Your task to perform on an android device: Search for "jbl charge 4" on amazon.com, select the first entry, and add it to the cart. Image 0: 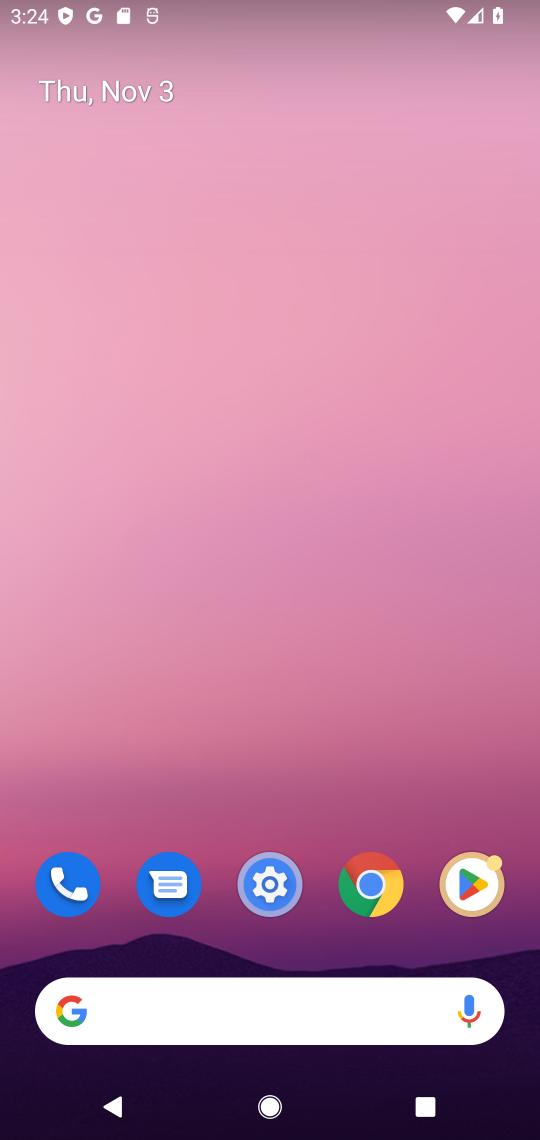
Step 0: press home button
Your task to perform on an android device: Search for "jbl charge 4" on amazon.com, select the first entry, and add it to the cart. Image 1: 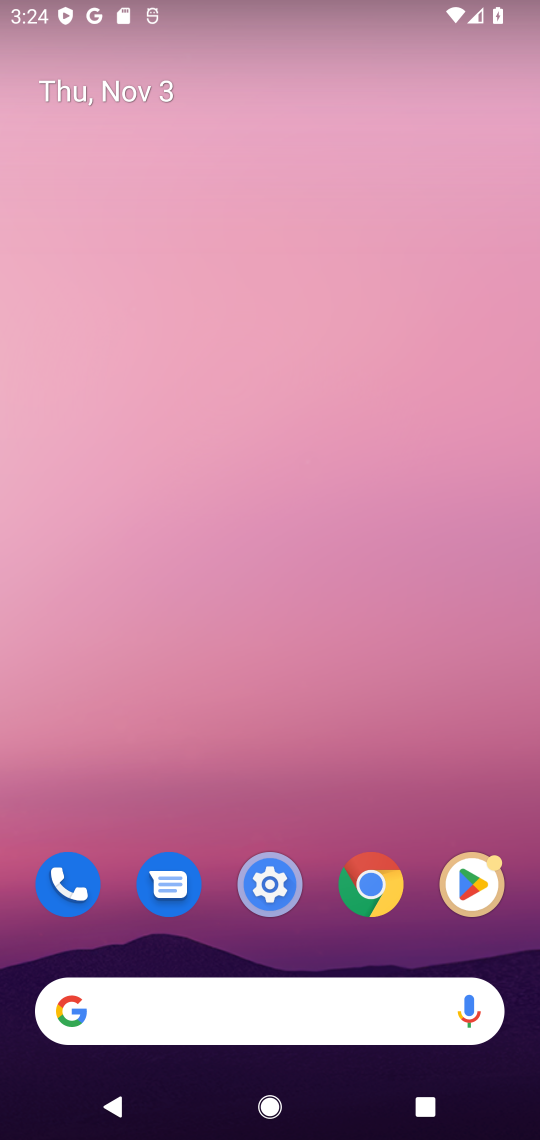
Step 1: click (108, 1009)
Your task to perform on an android device: Search for "jbl charge 4" on amazon.com, select the first entry, and add it to the cart. Image 2: 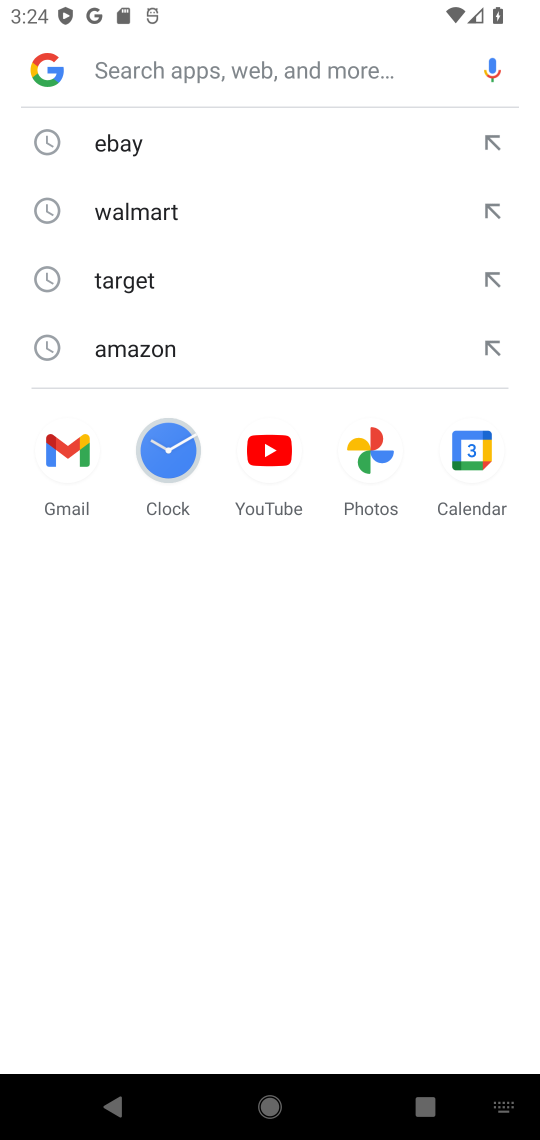
Step 2: type "amazon.com"
Your task to perform on an android device: Search for "jbl charge 4" on amazon.com, select the first entry, and add it to the cart. Image 3: 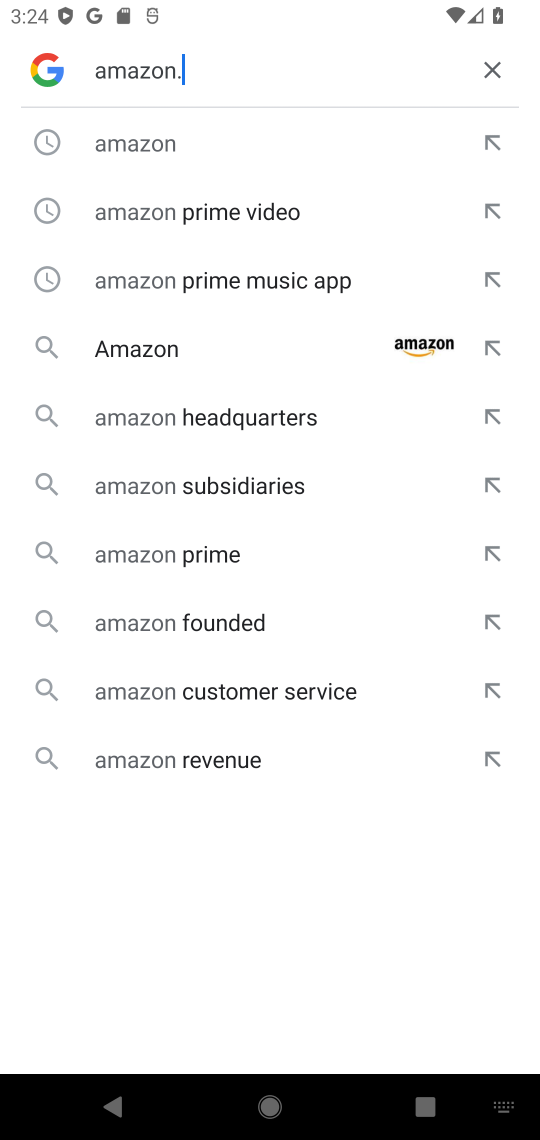
Step 3: press enter
Your task to perform on an android device: Search for "jbl charge 4" on amazon.com, select the first entry, and add it to the cart. Image 4: 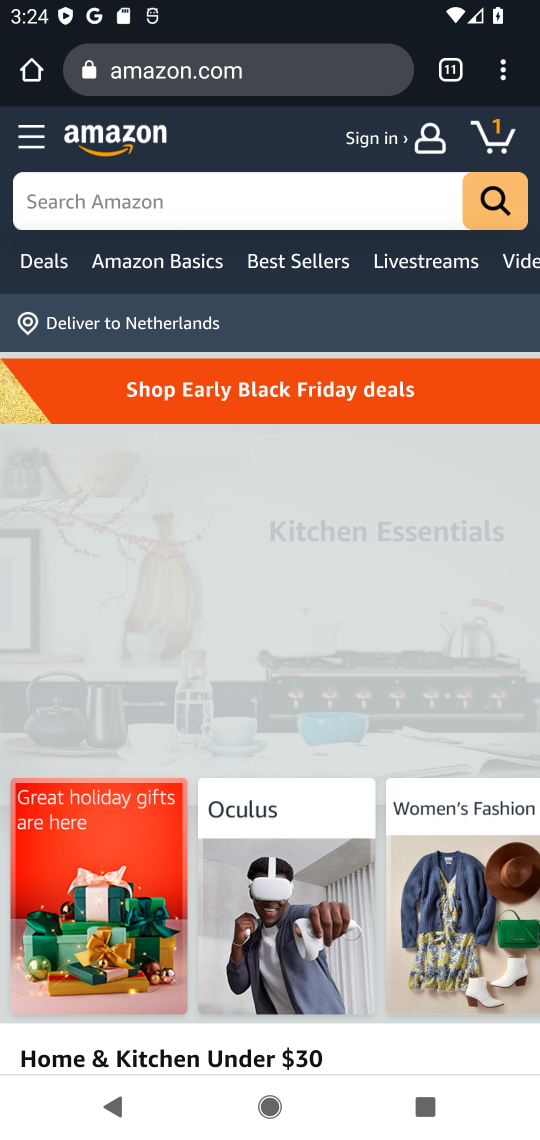
Step 4: click (81, 202)
Your task to perform on an android device: Search for "jbl charge 4" on amazon.com, select the first entry, and add it to the cart. Image 5: 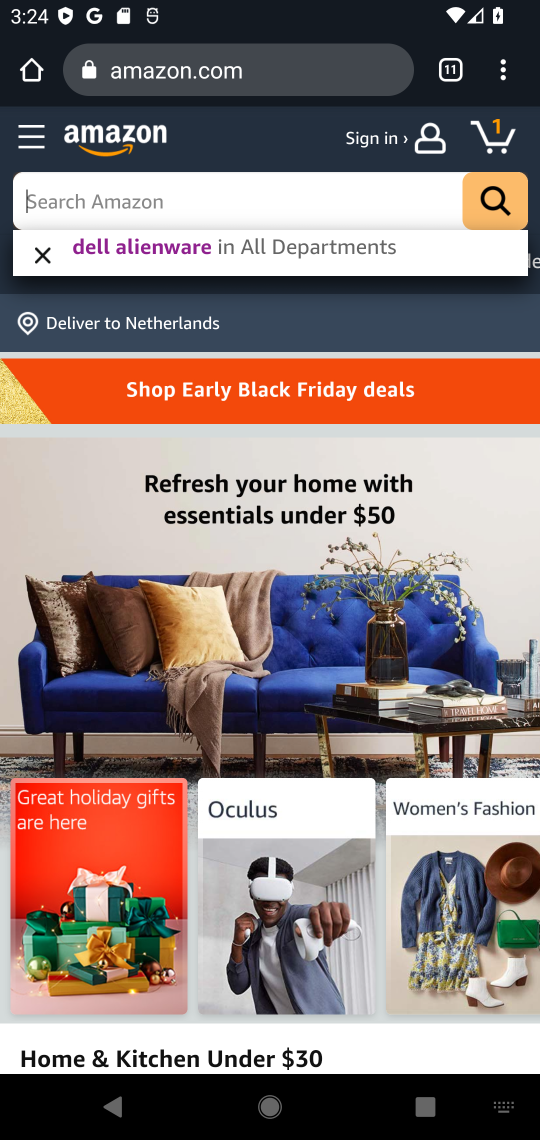
Step 5: type "jbl charge 4"
Your task to perform on an android device: Search for "jbl charge 4" on amazon.com, select the first entry, and add it to the cart. Image 6: 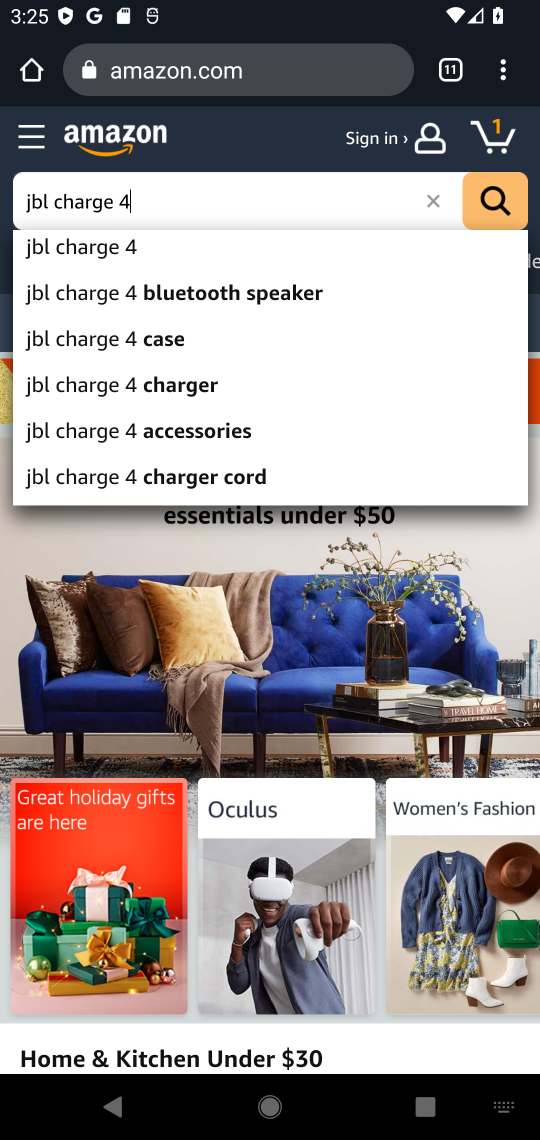
Step 6: click (495, 199)
Your task to perform on an android device: Search for "jbl charge 4" on amazon.com, select the first entry, and add it to the cart. Image 7: 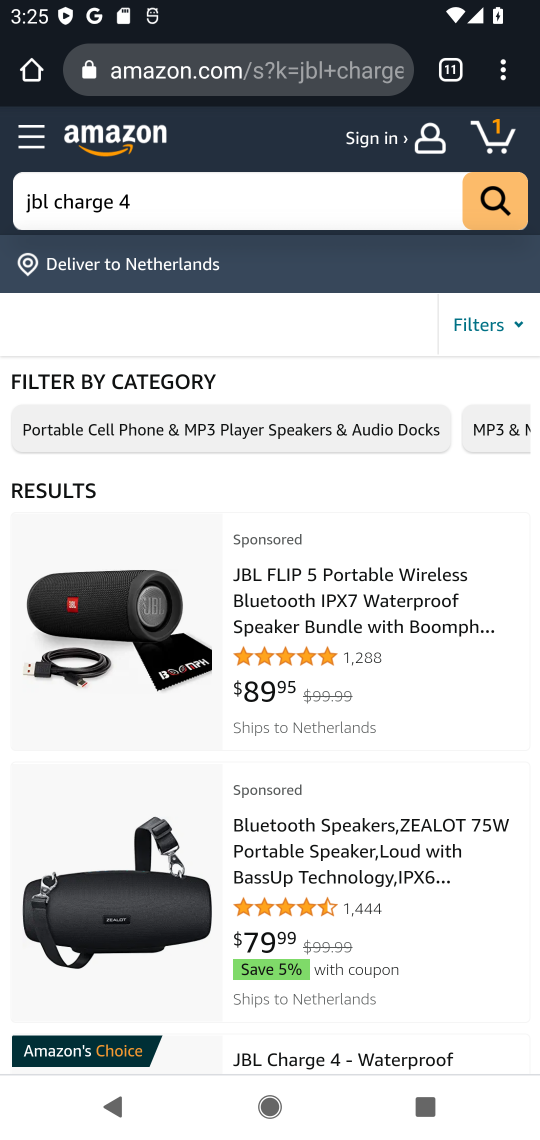
Step 7: drag from (387, 968) to (407, 693)
Your task to perform on an android device: Search for "jbl charge 4" on amazon.com, select the first entry, and add it to the cart. Image 8: 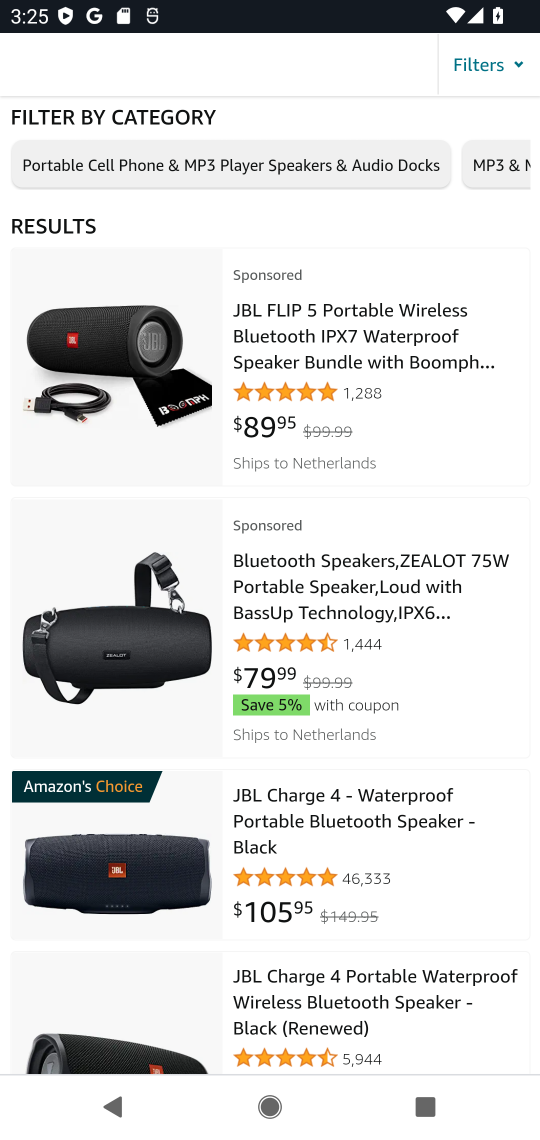
Step 8: drag from (398, 885) to (432, 524)
Your task to perform on an android device: Search for "jbl charge 4" on amazon.com, select the first entry, and add it to the cart. Image 9: 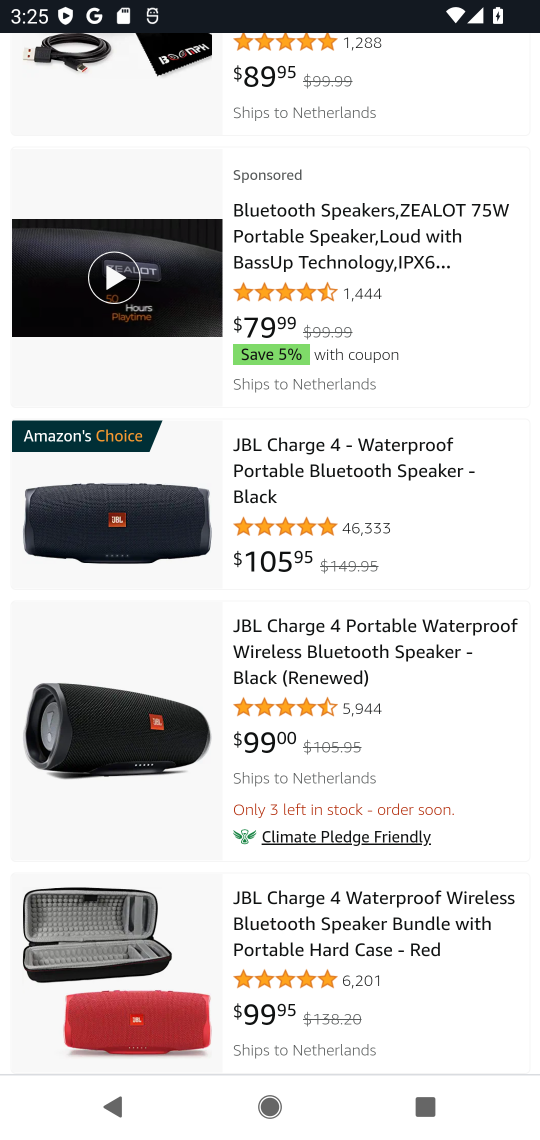
Step 9: click (320, 486)
Your task to perform on an android device: Search for "jbl charge 4" on amazon.com, select the first entry, and add it to the cart. Image 10: 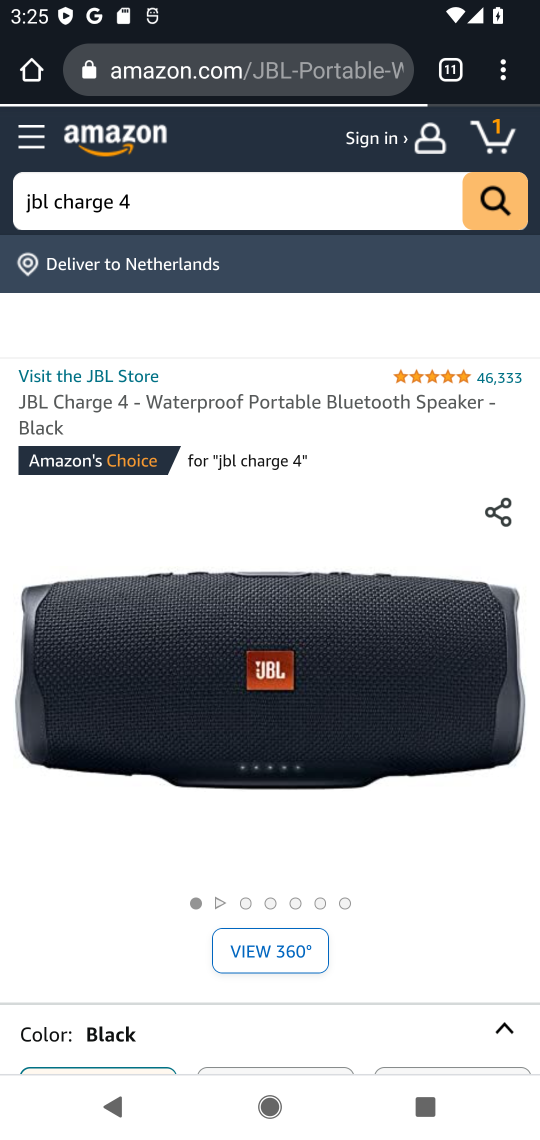
Step 10: drag from (362, 852) to (341, 480)
Your task to perform on an android device: Search for "jbl charge 4" on amazon.com, select the first entry, and add it to the cart. Image 11: 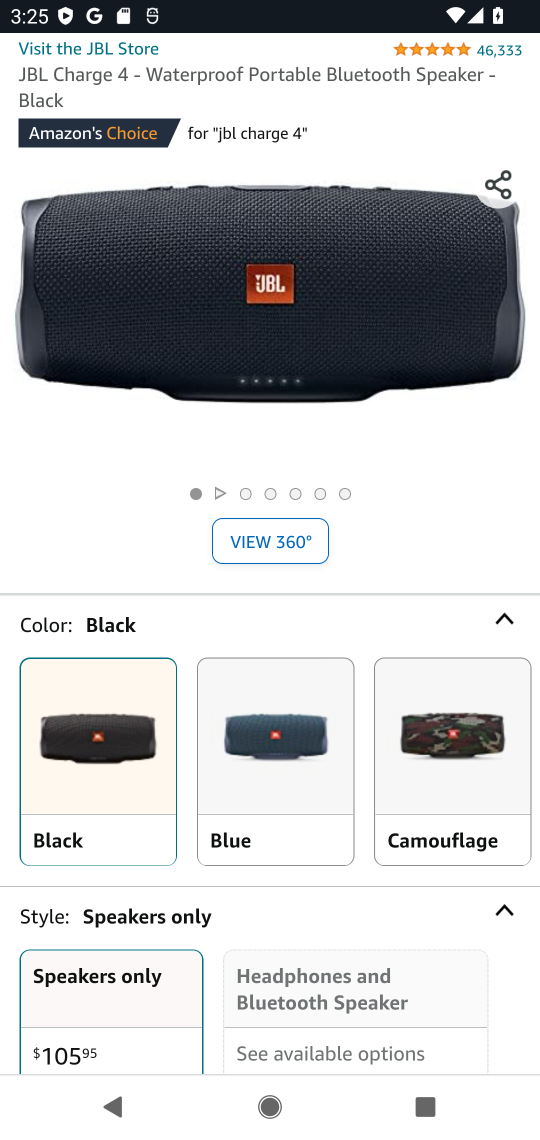
Step 11: drag from (334, 939) to (365, 419)
Your task to perform on an android device: Search for "jbl charge 4" on amazon.com, select the first entry, and add it to the cart. Image 12: 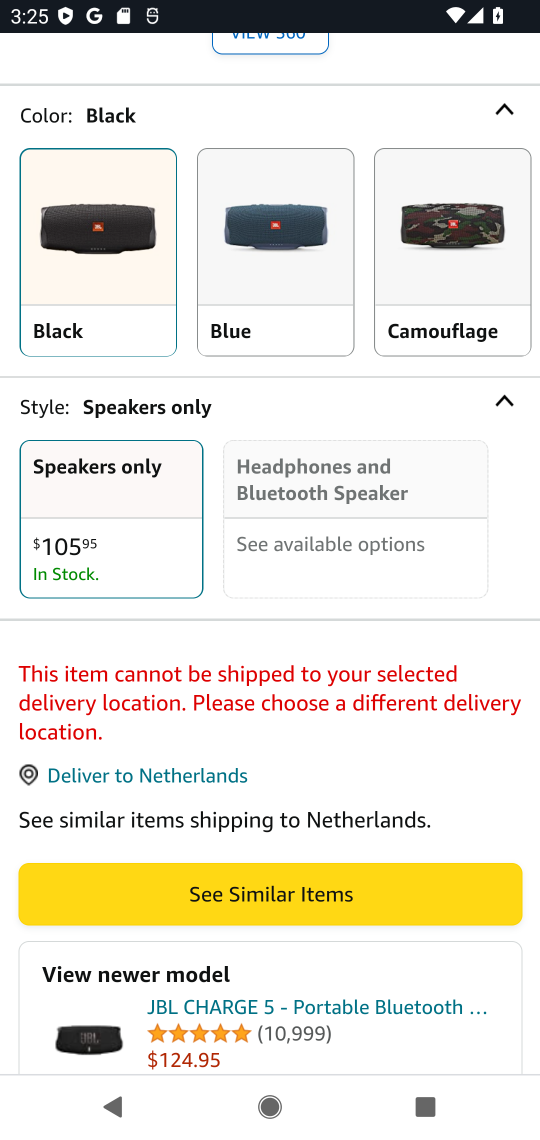
Step 12: press back button
Your task to perform on an android device: Search for "jbl charge 4" on amazon.com, select the first entry, and add it to the cart. Image 13: 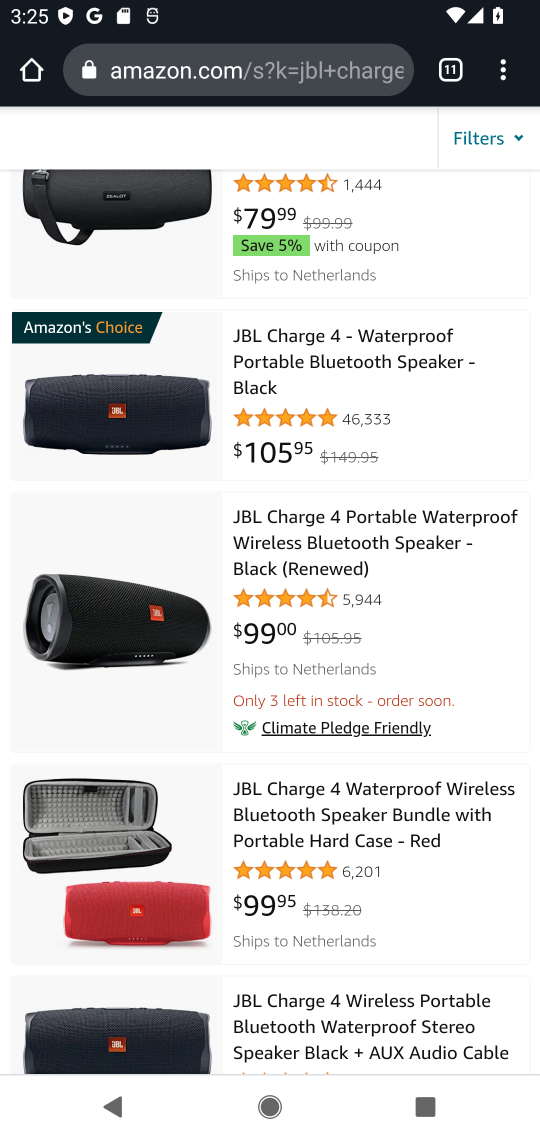
Step 13: drag from (334, 846) to (387, 459)
Your task to perform on an android device: Search for "jbl charge 4" on amazon.com, select the first entry, and add it to the cart. Image 14: 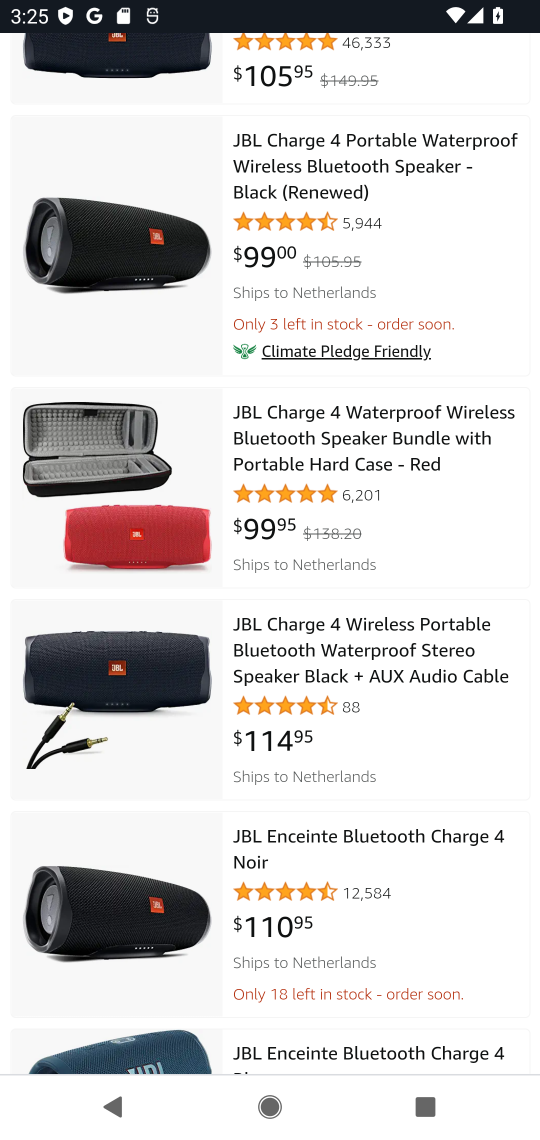
Step 14: click (329, 668)
Your task to perform on an android device: Search for "jbl charge 4" on amazon.com, select the first entry, and add it to the cart. Image 15: 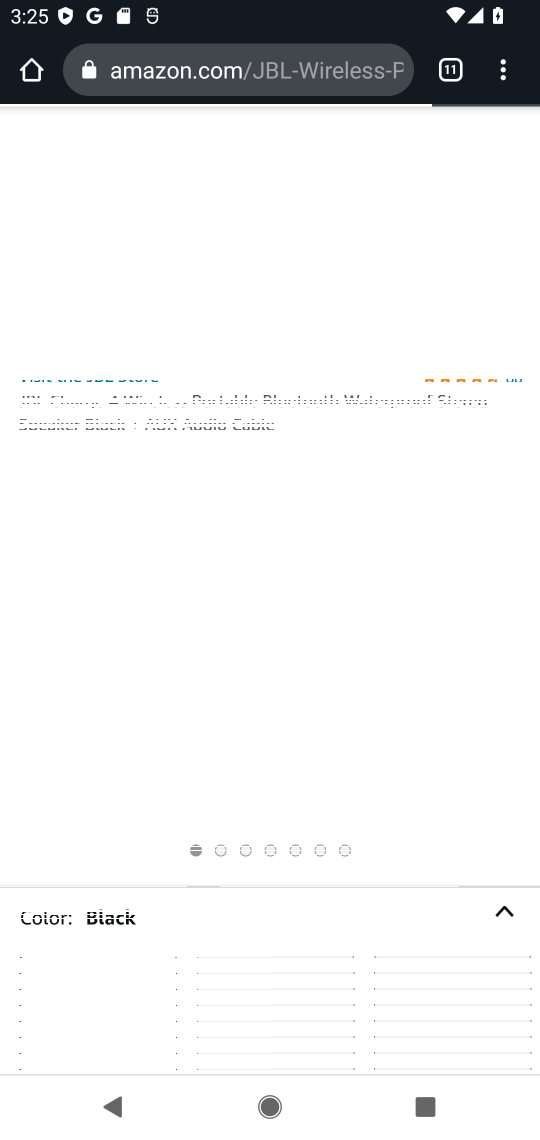
Step 15: drag from (320, 821) to (366, 440)
Your task to perform on an android device: Search for "jbl charge 4" on amazon.com, select the first entry, and add it to the cart. Image 16: 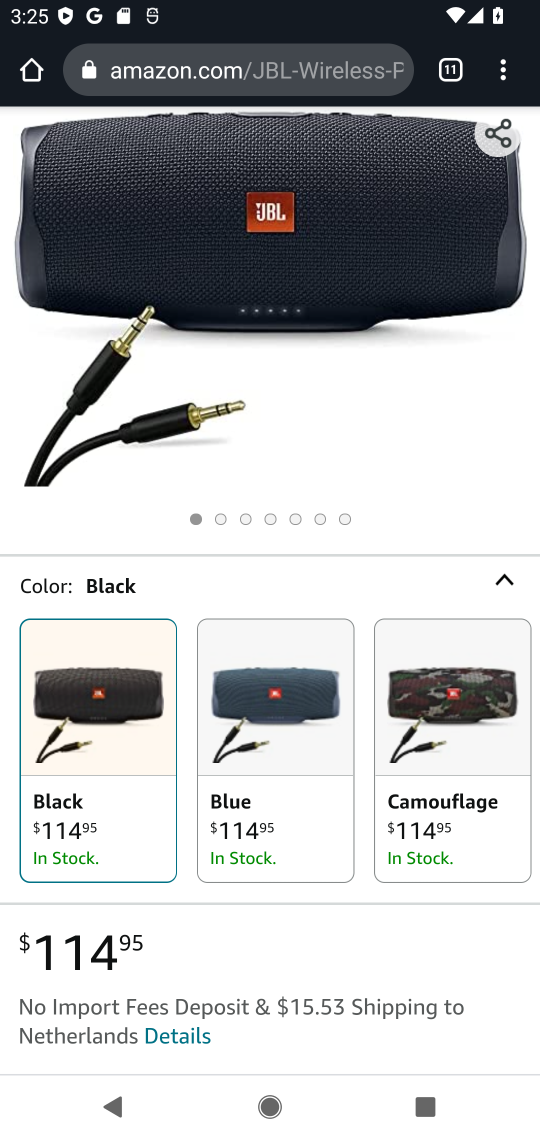
Step 16: drag from (343, 933) to (356, 438)
Your task to perform on an android device: Search for "jbl charge 4" on amazon.com, select the first entry, and add it to the cart. Image 17: 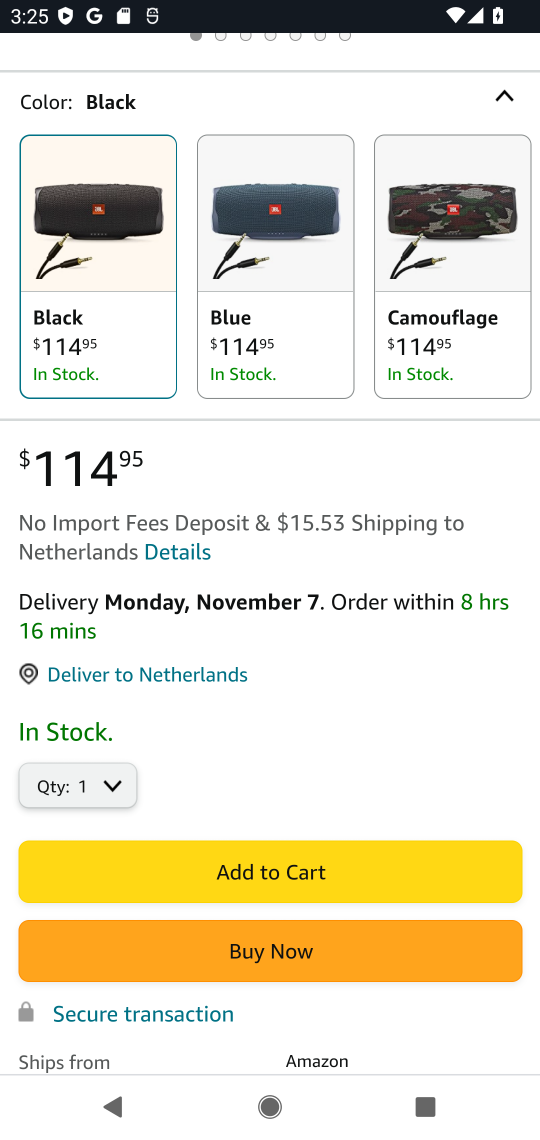
Step 17: click (277, 875)
Your task to perform on an android device: Search for "jbl charge 4" on amazon.com, select the first entry, and add it to the cart. Image 18: 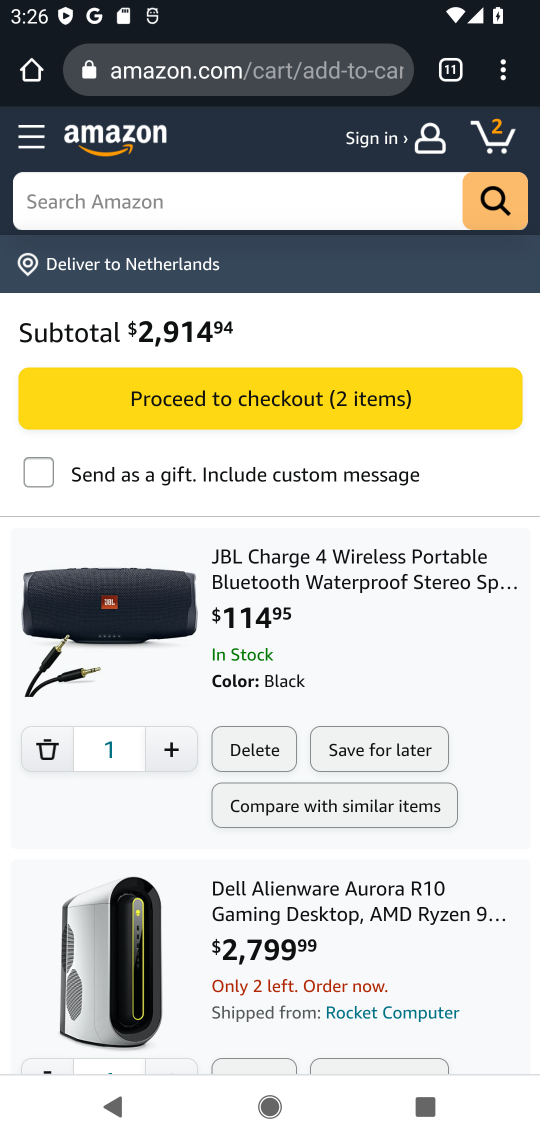
Step 18: task complete